Your task to perform on an android device: turn off picture-in-picture Image 0: 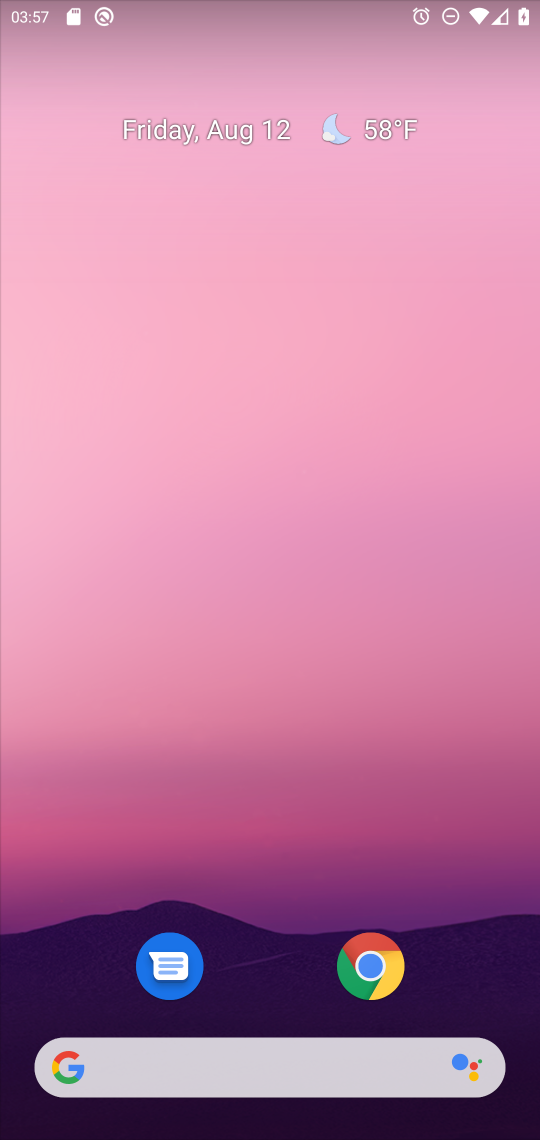
Step 0: click (368, 958)
Your task to perform on an android device: turn off picture-in-picture Image 1: 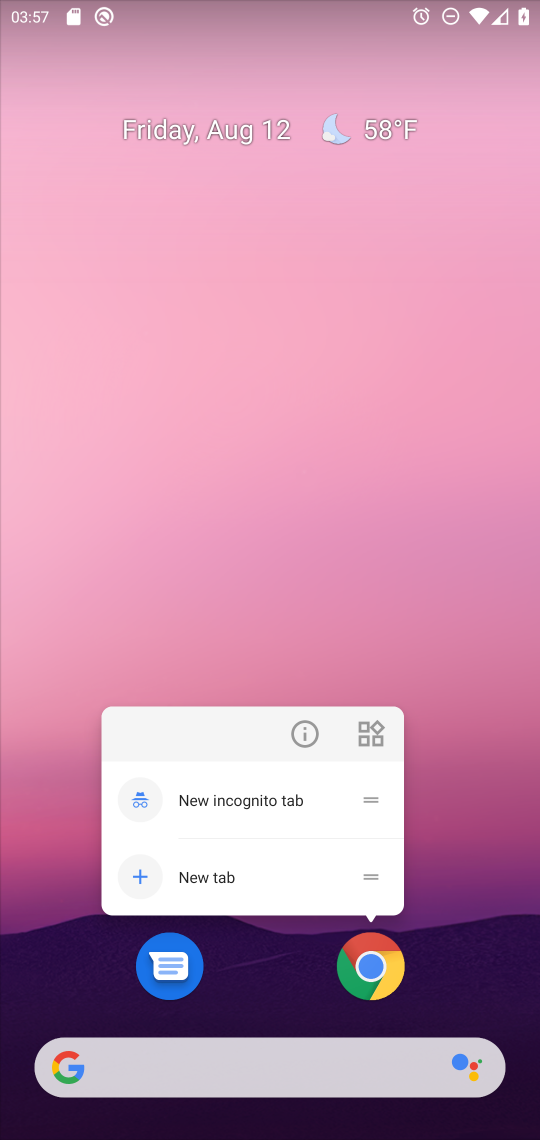
Step 1: click (300, 730)
Your task to perform on an android device: turn off picture-in-picture Image 2: 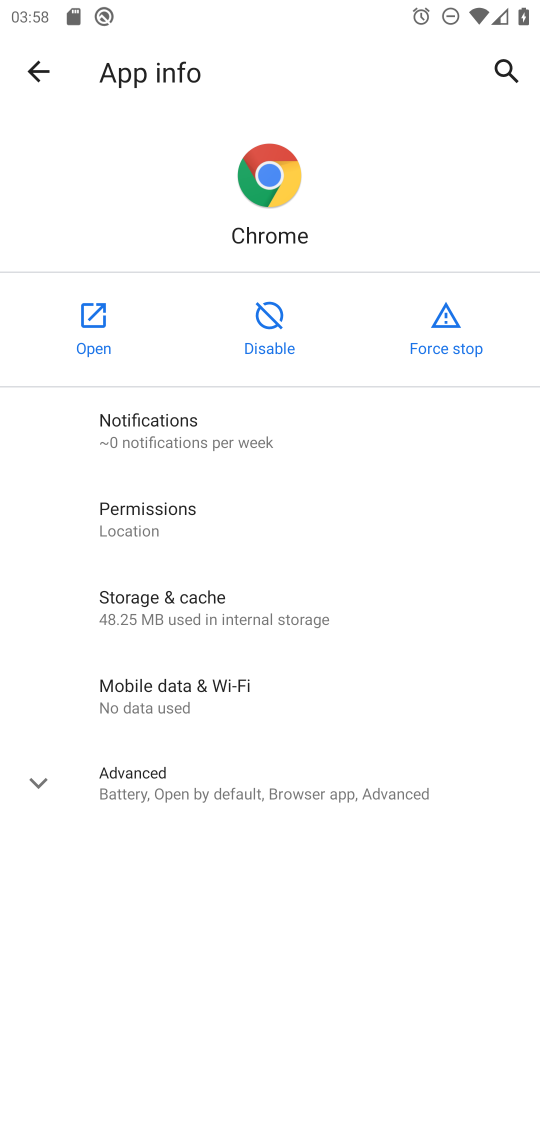
Step 2: click (213, 787)
Your task to perform on an android device: turn off picture-in-picture Image 3: 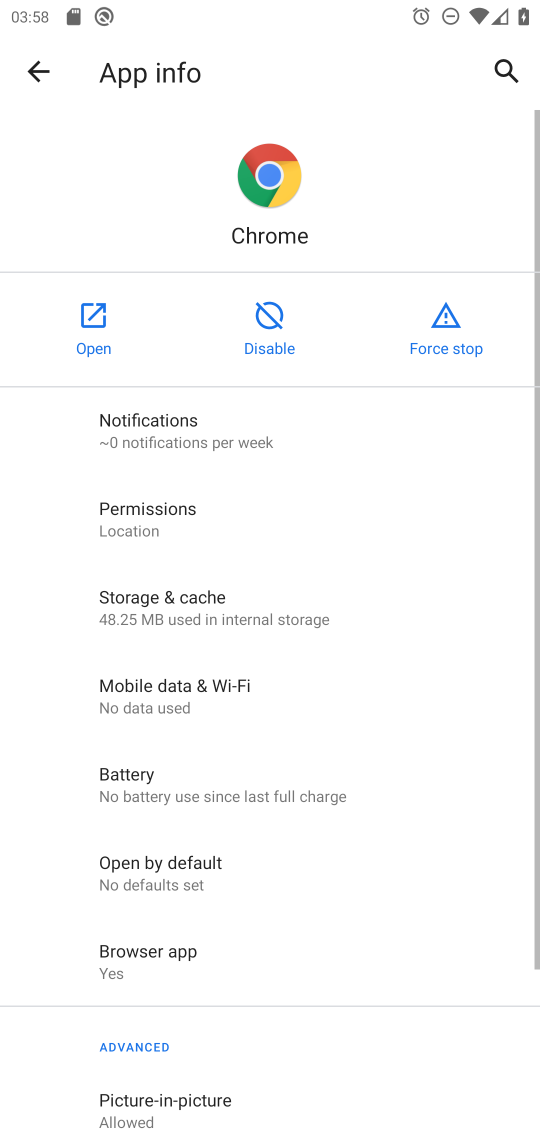
Step 3: drag from (368, 1002) to (463, 277)
Your task to perform on an android device: turn off picture-in-picture Image 4: 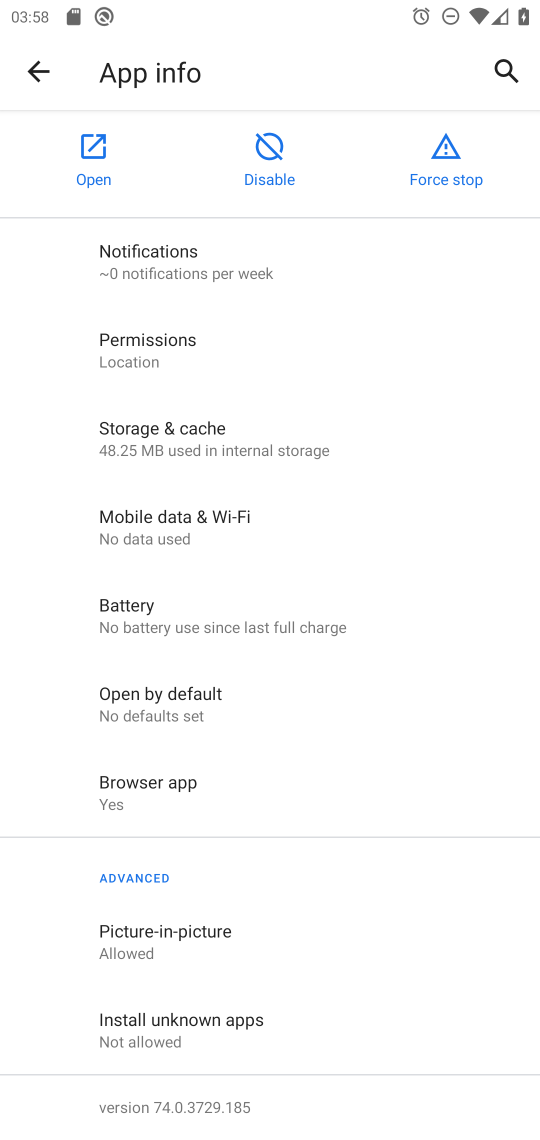
Step 4: click (200, 964)
Your task to perform on an android device: turn off picture-in-picture Image 5: 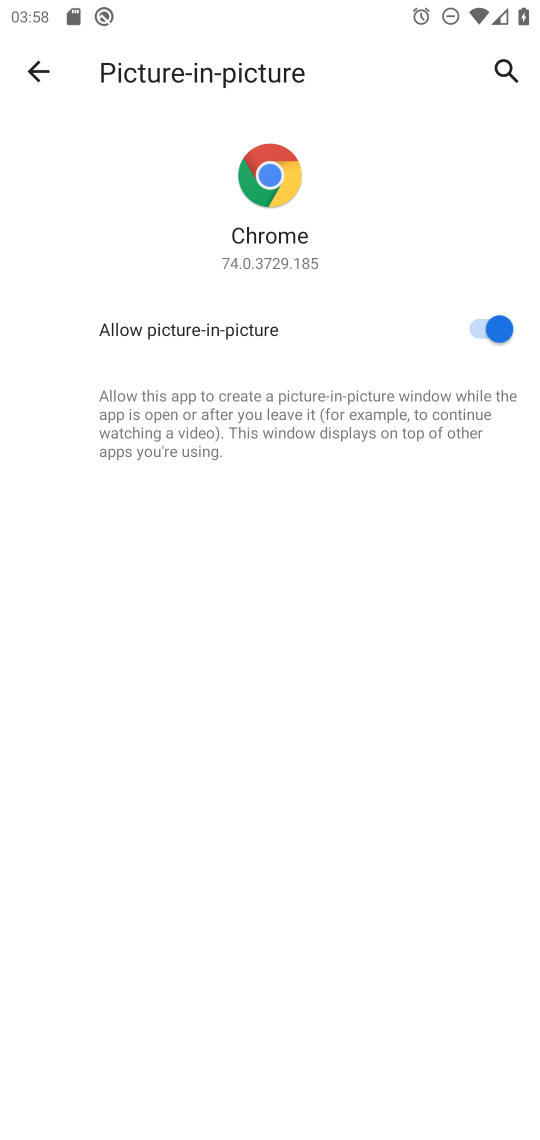
Step 5: click (473, 336)
Your task to perform on an android device: turn off picture-in-picture Image 6: 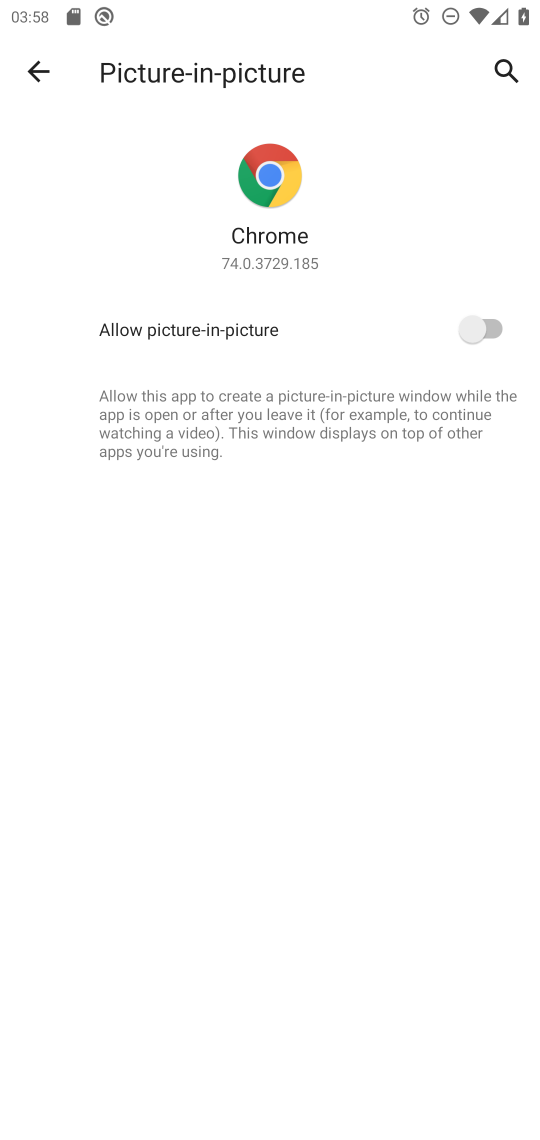
Step 6: task complete